Your task to perform on an android device: Open the web browser Image 0: 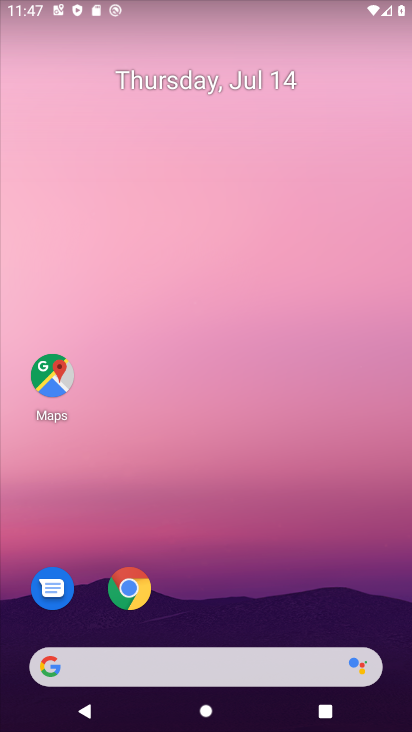
Step 0: click (135, 596)
Your task to perform on an android device: Open the web browser Image 1: 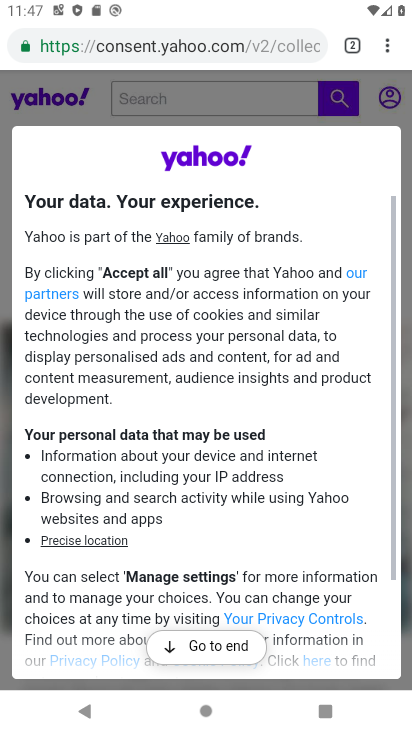
Step 1: task complete